Your task to perform on an android device: Open eBay Image 0: 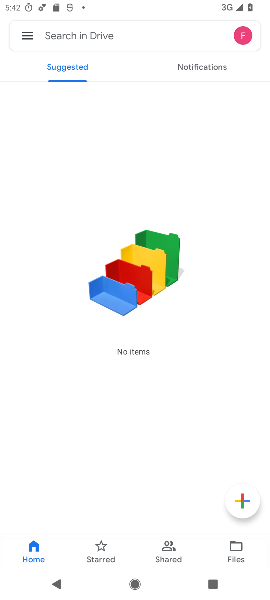
Step 0: press home button
Your task to perform on an android device: Open eBay Image 1: 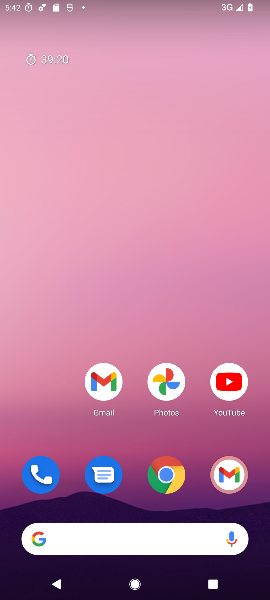
Step 1: drag from (49, 428) to (69, 221)
Your task to perform on an android device: Open eBay Image 2: 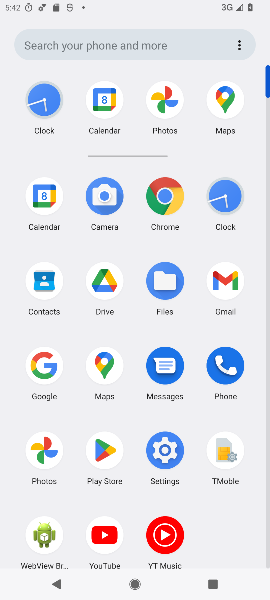
Step 2: click (167, 192)
Your task to perform on an android device: Open eBay Image 3: 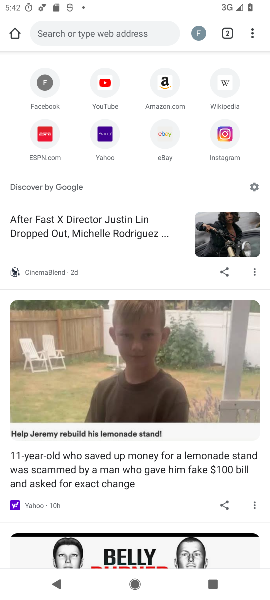
Step 3: click (130, 31)
Your task to perform on an android device: Open eBay Image 4: 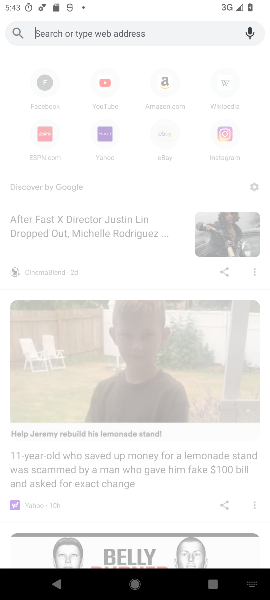
Step 4: type "ebay"
Your task to perform on an android device: Open eBay Image 5: 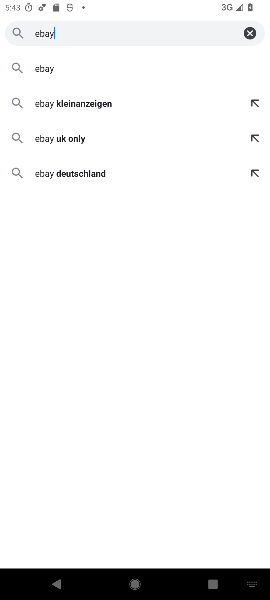
Step 5: click (70, 71)
Your task to perform on an android device: Open eBay Image 6: 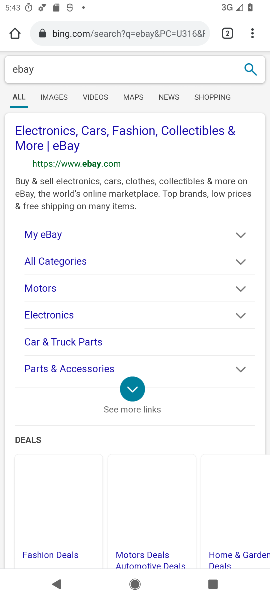
Step 6: task complete